Your task to perform on an android device: Open settings on Google Maps Image 0: 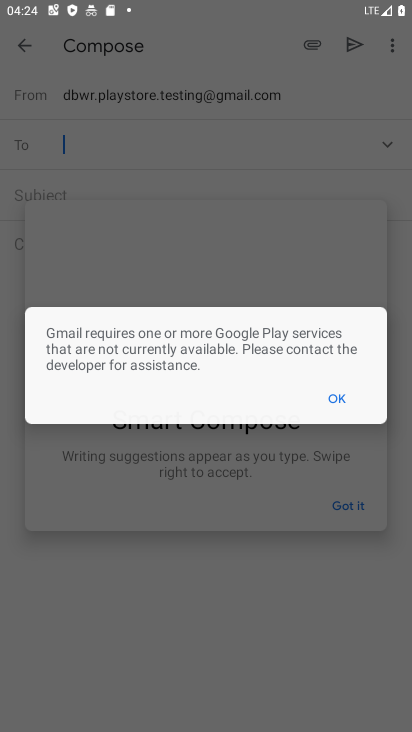
Step 0: press home button
Your task to perform on an android device: Open settings on Google Maps Image 1: 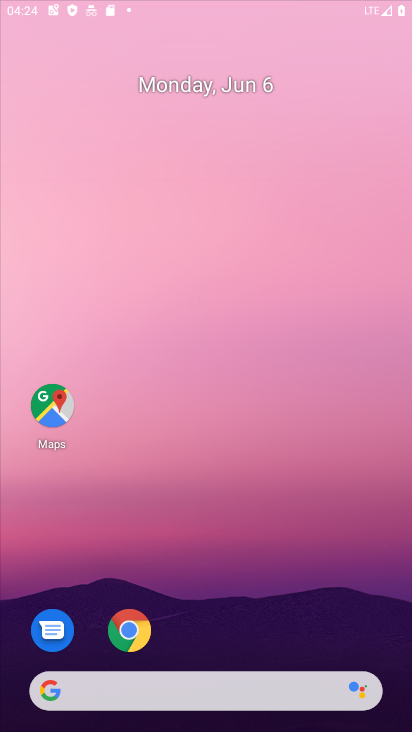
Step 1: drag from (260, 678) to (157, 155)
Your task to perform on an android device: Open settings on Google Maps Image 2: 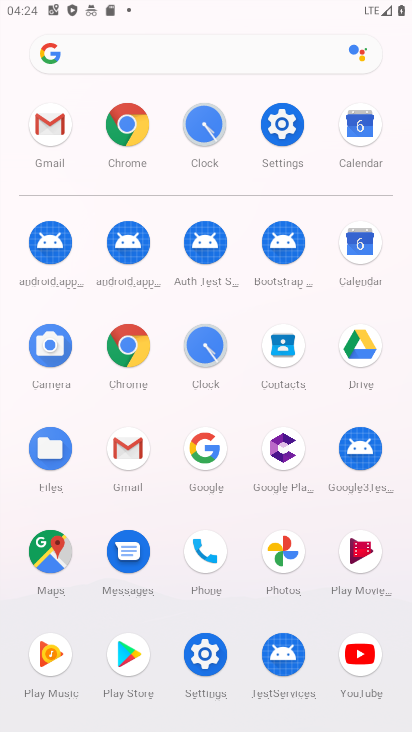
Step 2: click (23, 565)
Your task to perform on an android device: Open settings on Google Maps Image 3: 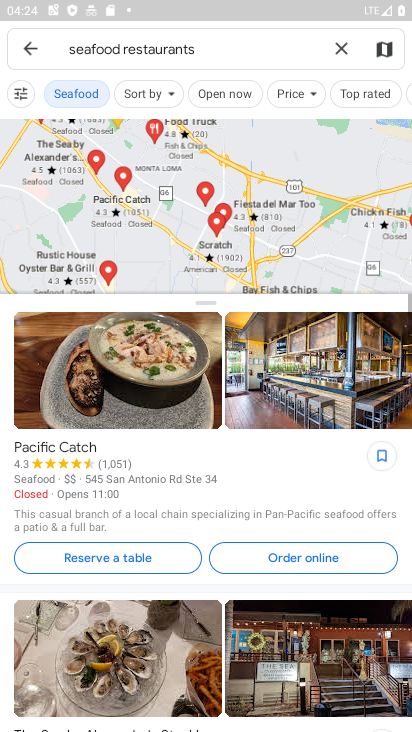
Step 3: click (332, 57)
Your task to perform on an android device: Open settings on Google Maps Image 4: 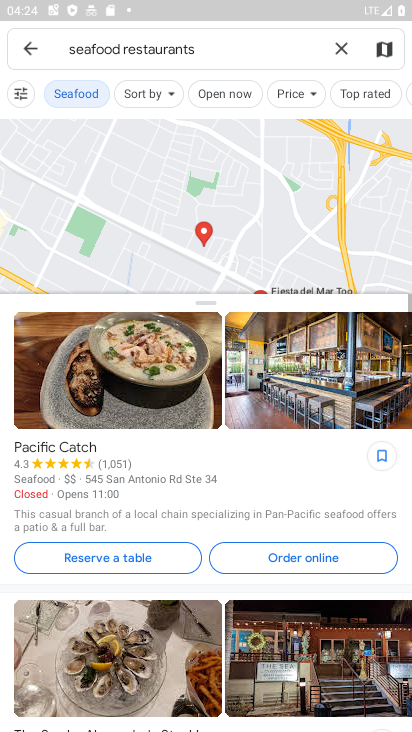
Step 4: click (337, 57)
Your task to perform on an android device: Open settings on Google Maps Image 5: 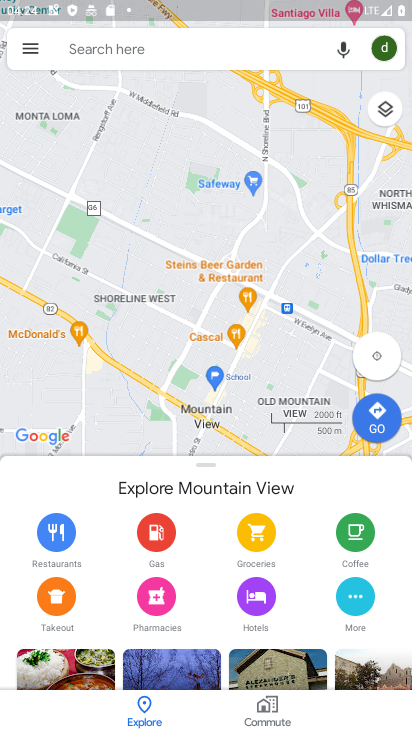
Step 5: click (16, 49)
Your task to perform on an android device: Open settings on Google Maps Image 6: 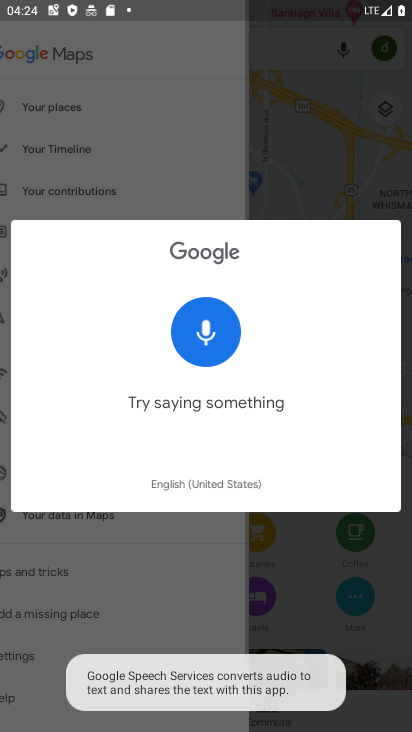
Step 6: click (16, 49)
Your task to perform on an android device: Open settings on Google Maps Image 7: 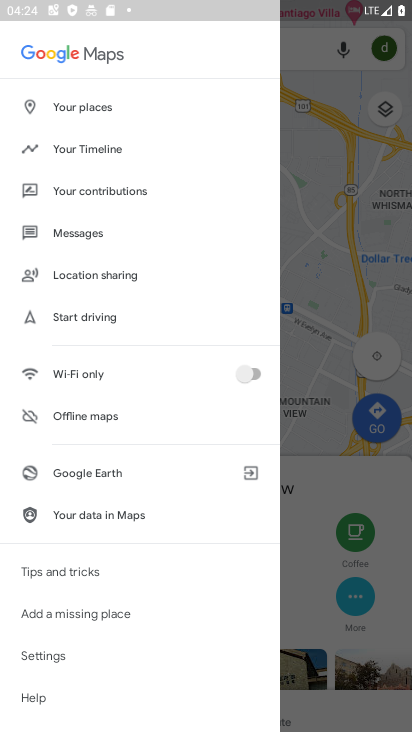
Step 7: drag from (70, 608) to (113, 121)
Your task to perform on an android device: Open settings on Google Maps Image 8: 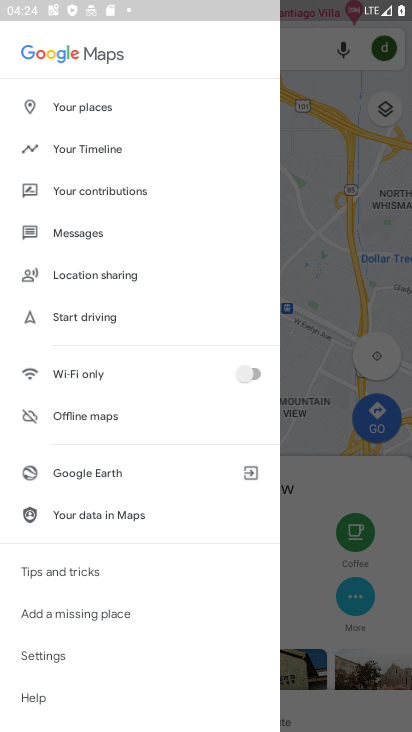
Step 8: click (37, 649)
Your task to perform on an android device: Open settings on Google Maps Image 9: 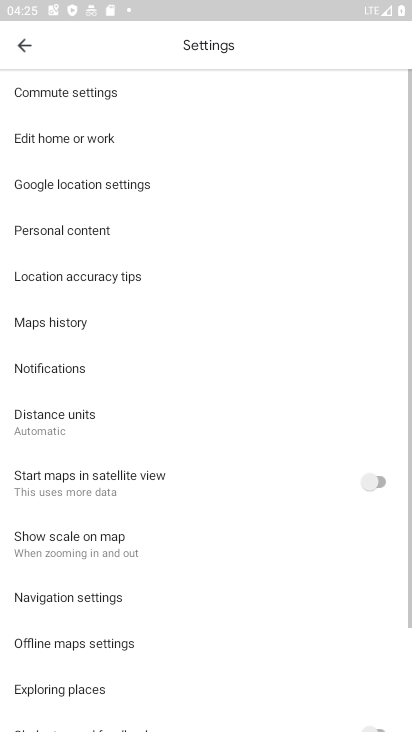
Step 9: task complete